Your task to perform on an android device: turn on translation in the chrome app Image 0: 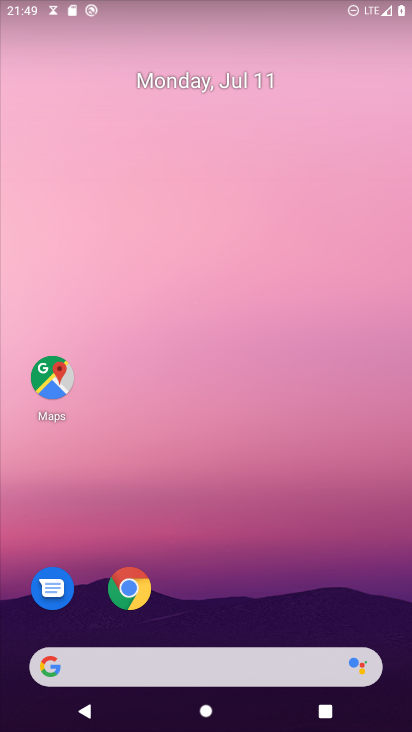
Step 0: press home button
Your task to perform on an android device: turn on translation in the chrome app Image 1: 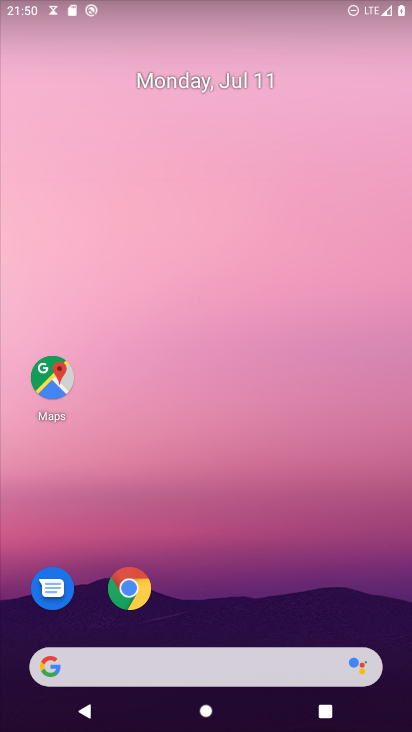
Step 1: drag from (263, 633) to (264, 76)
Your task to perform on an android device: turn on translation in the chrome app Image 2: 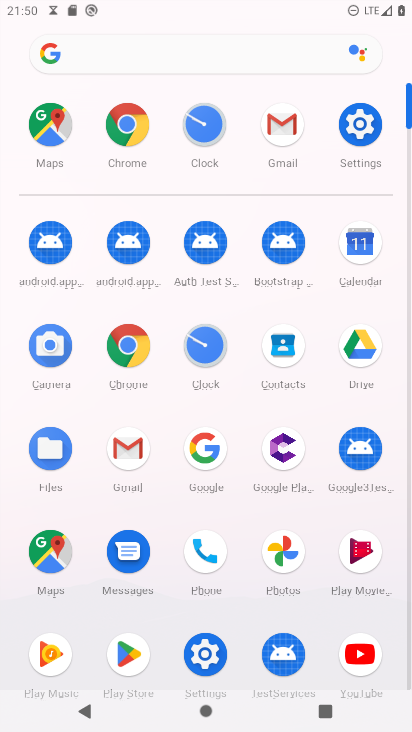
Step 2: click (130, 133)
Your task to perform on an android device: turn on translation in the chrome app Image 3: 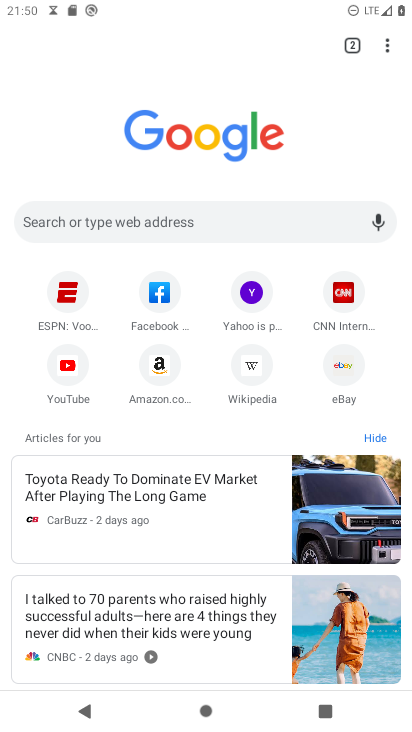
Step 3: click (383, 44)
Your task to perform on an android device: turn on translation in the chrome app Image 4: 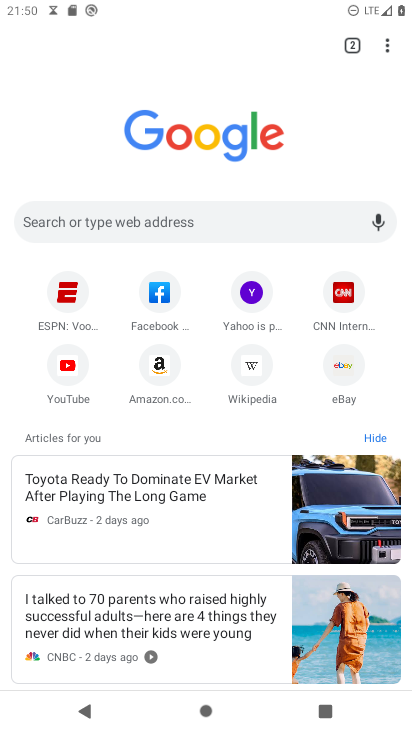
Step 4: drag from (383, 44) to (239, 379)
Your task to perform on an android device: turn on translation in the chrome app Image 5: 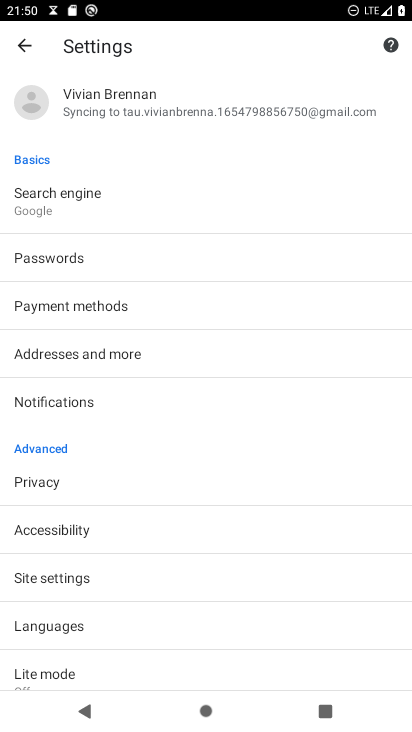
Step 5: click (38, 627)
Your task to perform on an android device: turn on translation in the chrome app Image 6: 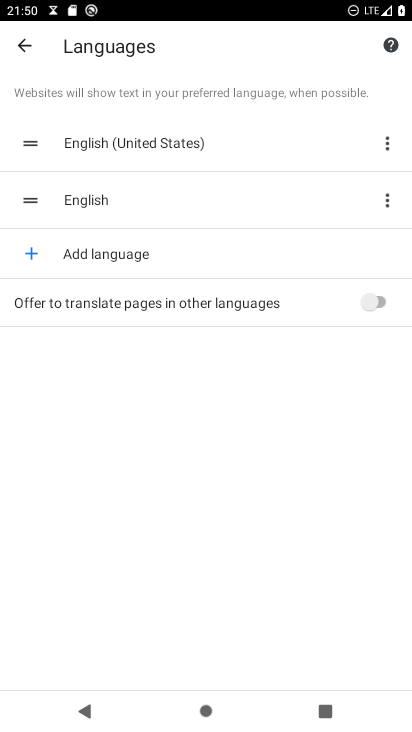
Step 6: click (377, 309)
Your task to perform on an android device: turn on translation in the chrome app Image 7: 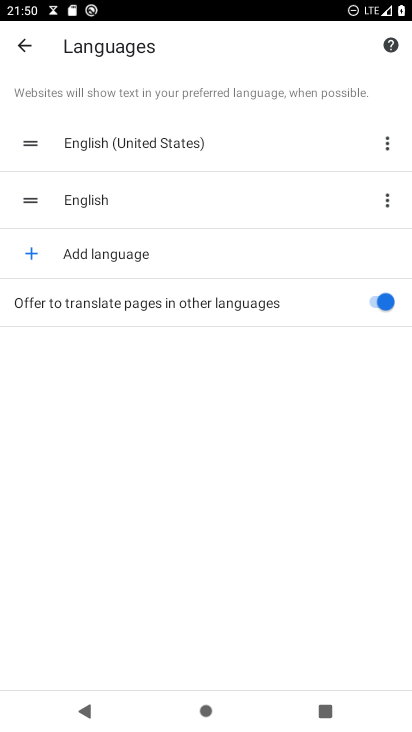
Step 7: task complete